Your task to perform on an android device: turn on sleep mode Image 0: 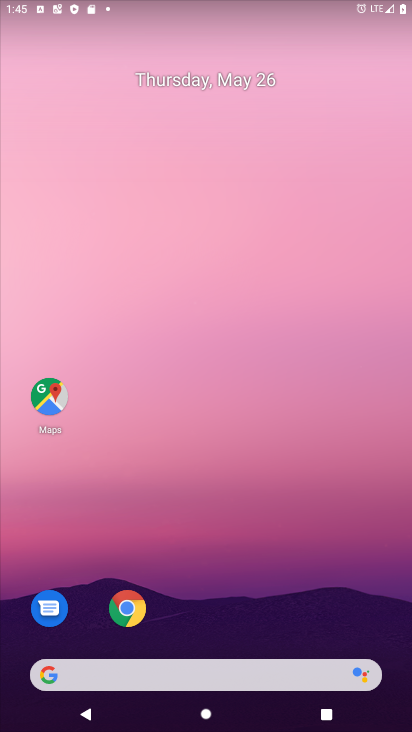
Step 0: drag from (342, 580) to (269, 225)
Your task to perform on an android device: turn on sleep mode Image 1: 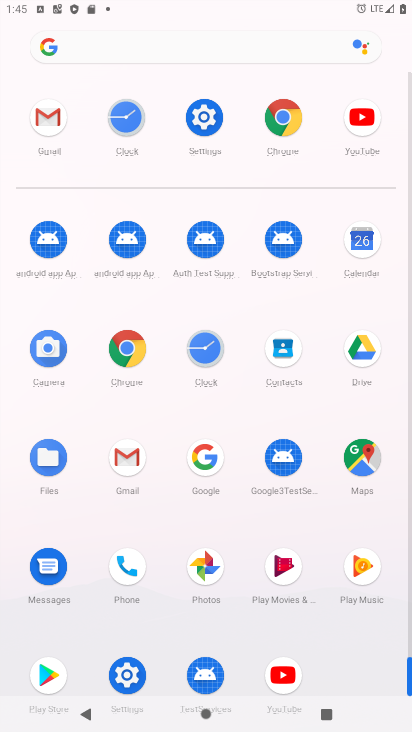
Step 1: click (126, 672)
Your task to perform on an android device: turn on sleep mode Image 2: 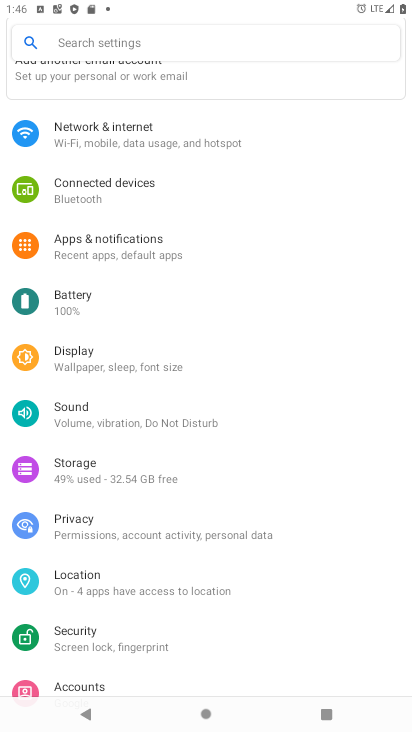
Step 2: click (83, 356)
Your task to perform on an android device: turn on sleep mode Image 3: 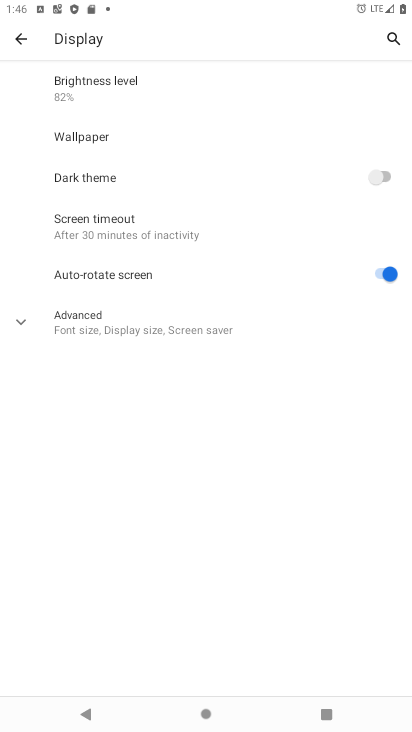
Step 3: click (24, 317)
Your task to perform on an android device: turn on sleep mode Image 4: 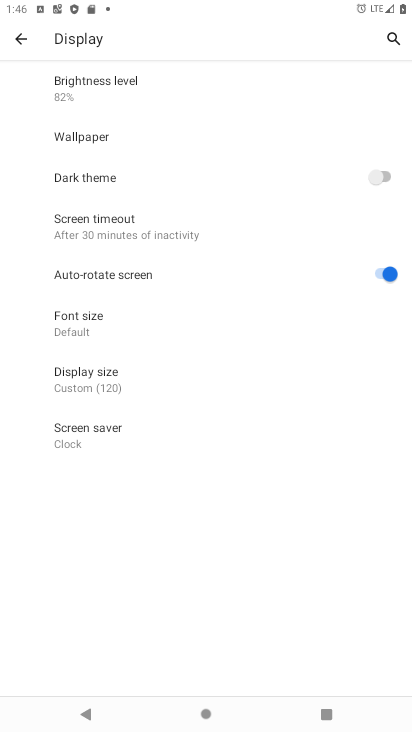
Step 4: task complete